Your task to perform on an android device: Open settings on Google Maps Image 0: 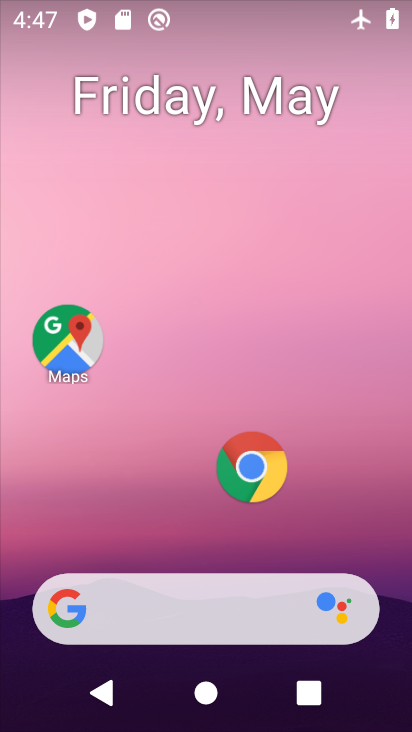
Step 0: drag from (304, 552) to (107, 47)
Your task to perform on an android device: Open settings on Google Maps Image 1: 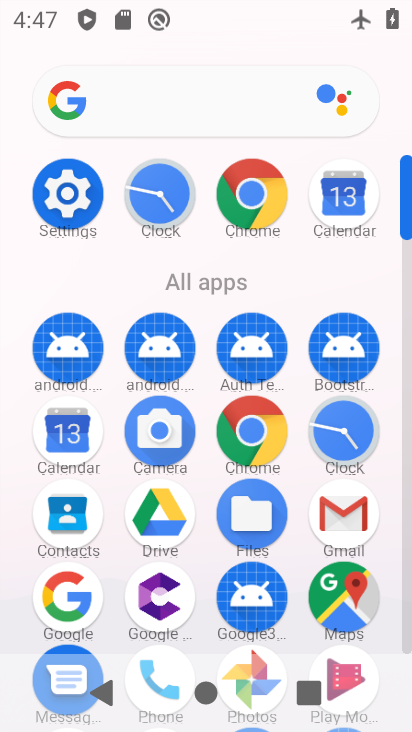
Step 1: click (342, 590)
Your task to perform on an android device: Open settings on Google Maps Image 2: 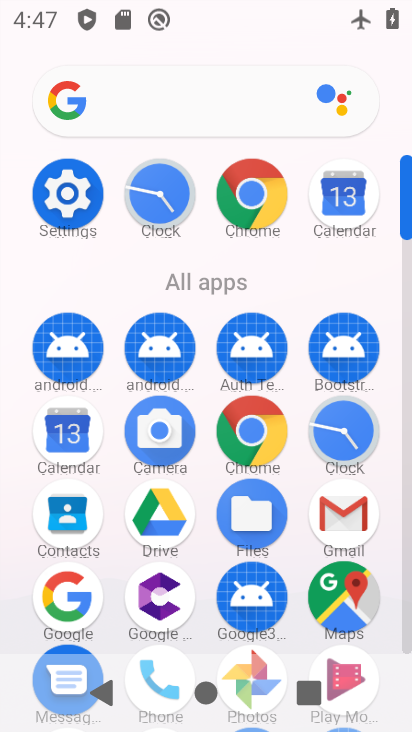
Step 2: click (342, 590)
Your task to perform on an android device: Open settings on Google Maps Image 3: 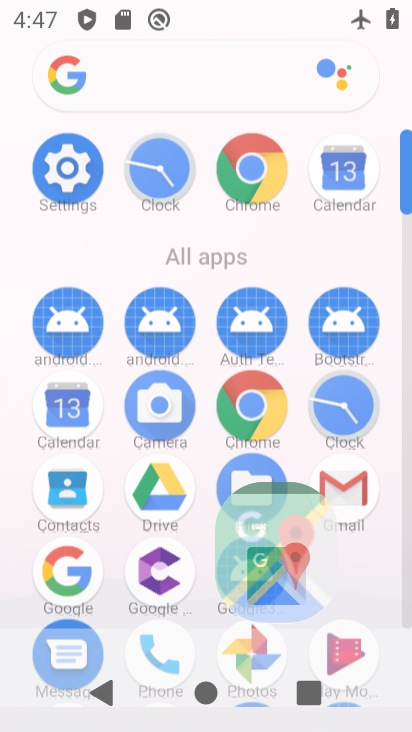
Step 3: click (353, 584)
Your task to perform on an android device: Open settings on Google Maps Image 4: 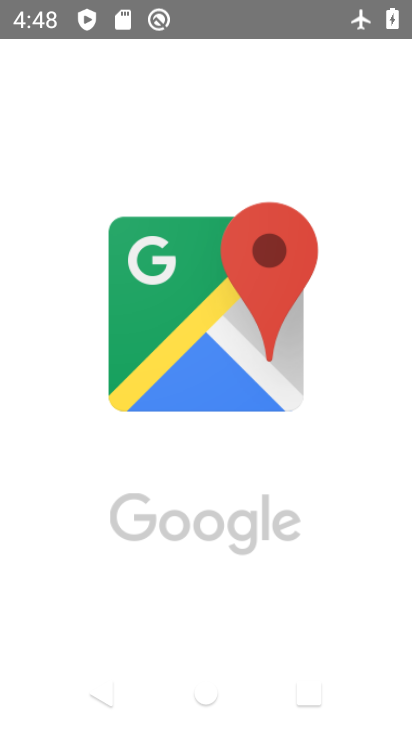
Step 4: click (357, 580)
Your task to perform on an android device: Open settings on Google Maps Image 5: 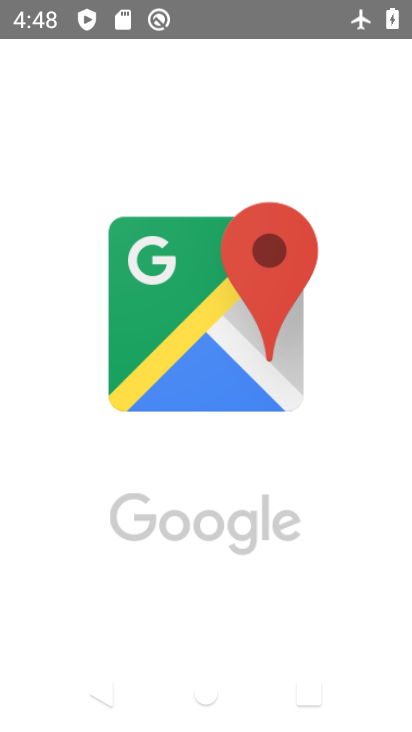
Step 5: click (357, 580)
Your task to perform on an android device: Open settings on Google Maps Image 6: 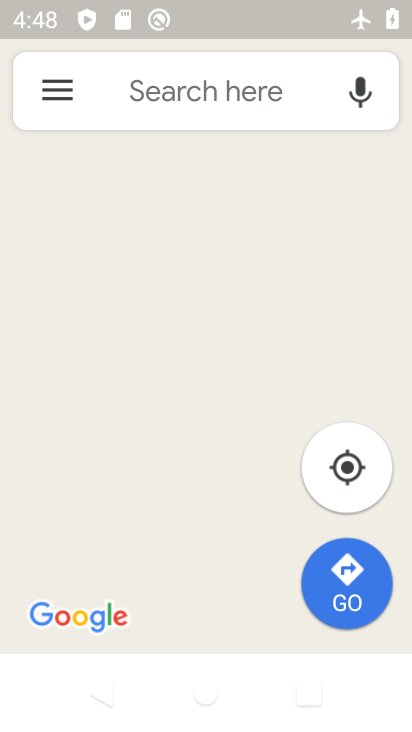
Step 6: task complete